Your task to perform on an android device: Open notification settings Image 0: 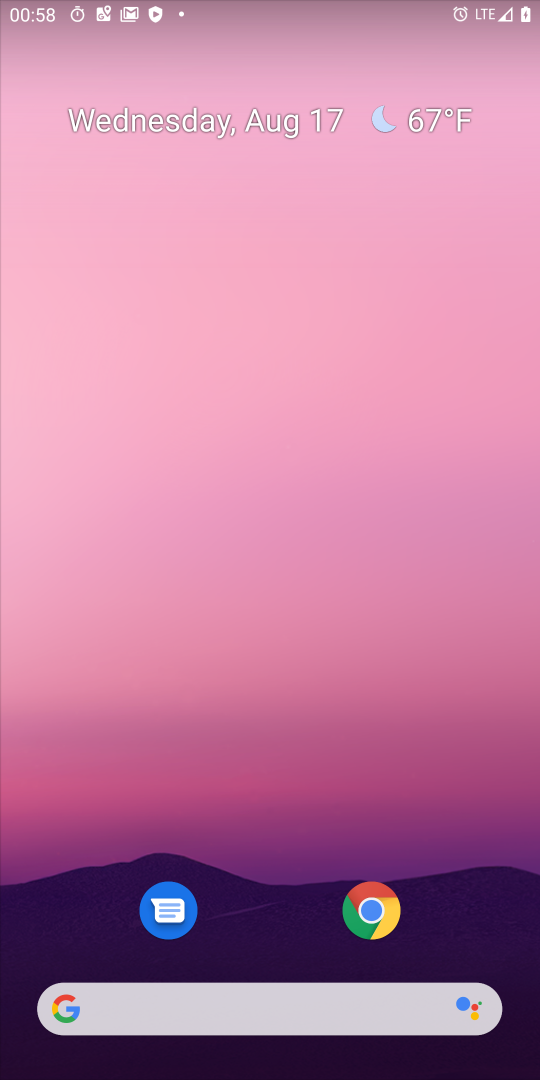
Step 0: drag from (264, 891) to (389, 64)
Your task to perform on an android device: Open notification settings Image 1: 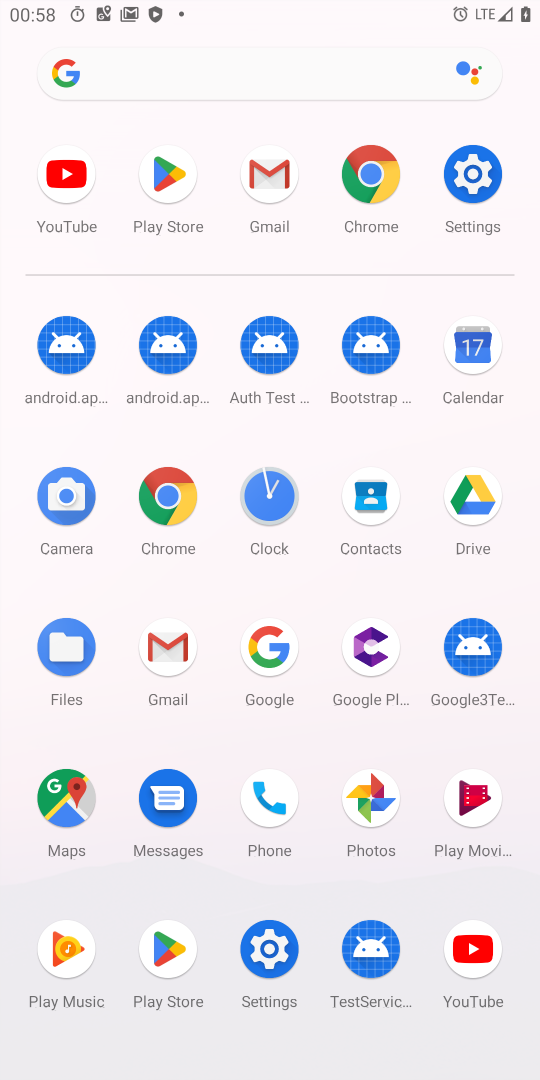
Step 1: click (259, 964)
Your task to perform on an android device: Open notification settings Image 2: 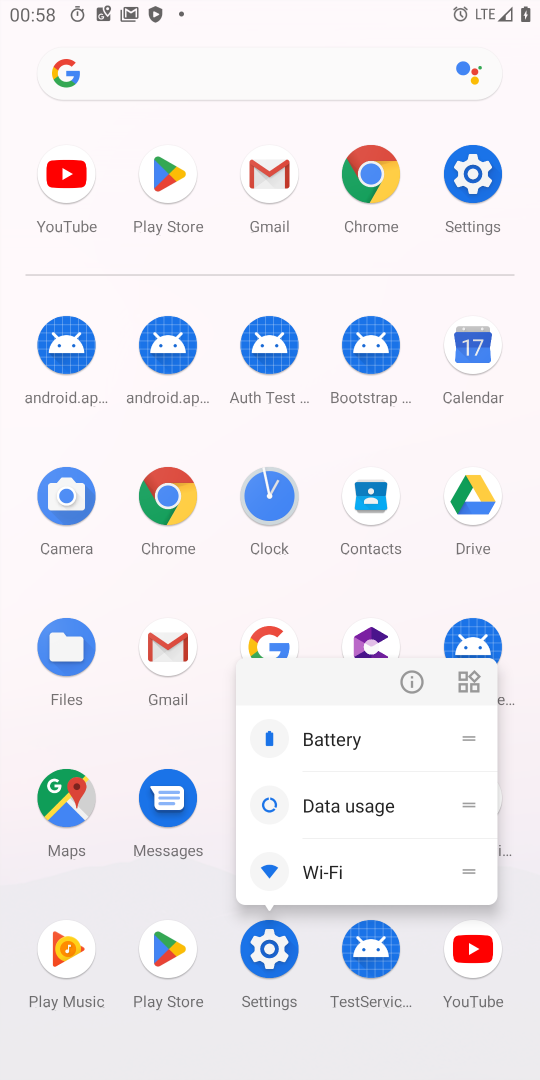
Step 2: click (270, 953)
Your task to perform on an android device: Open notification settings Image 3: 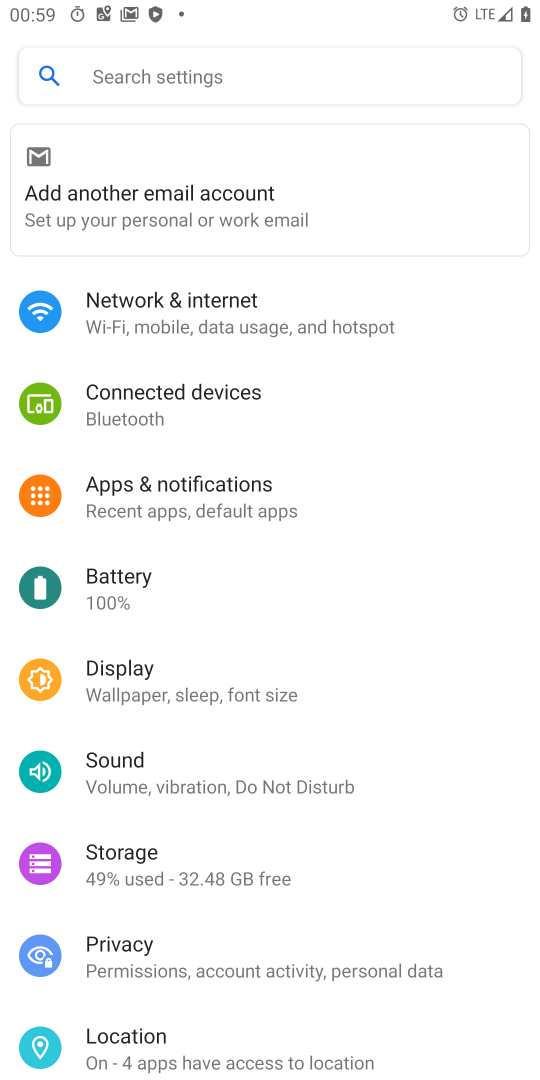
Step 3: click (224, 515)
Your task to perform on an android device: Open notification settings Image 4: 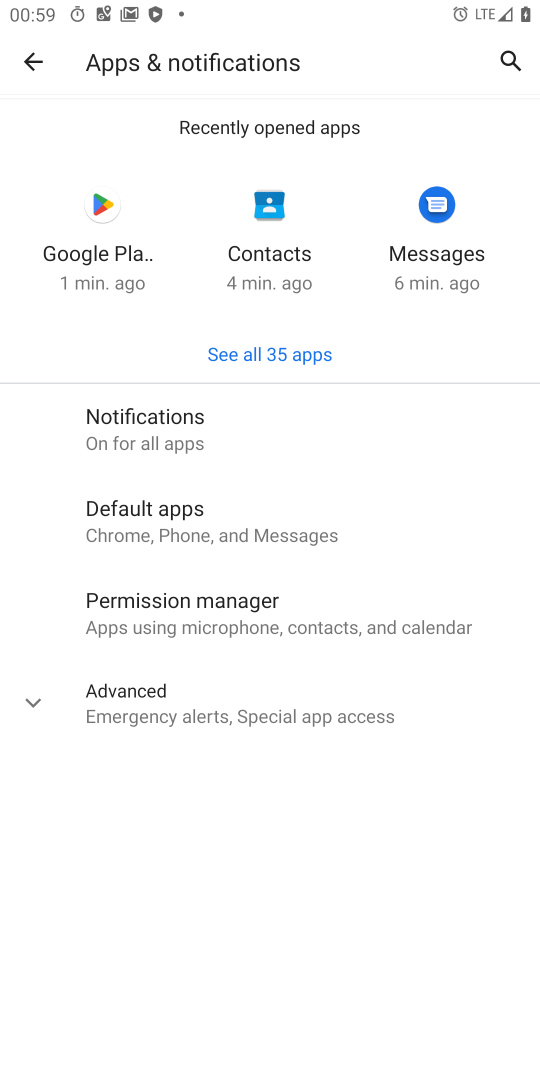
Step 4: click (188, 416)
Your task to perform on an android device: Open notification settings Image 5: 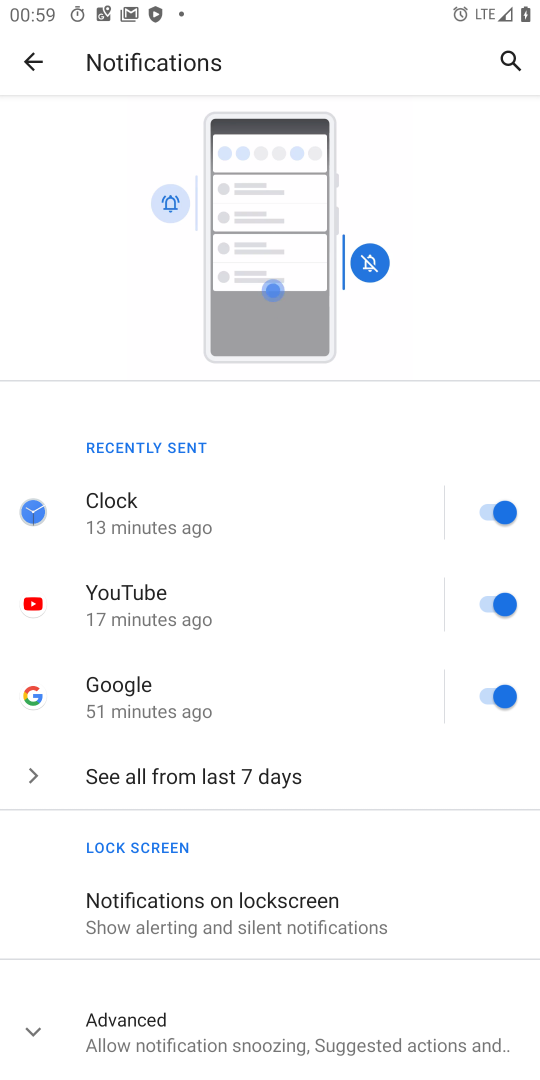
Step 5: task complete